Your task to perform on an android device: change the upload size in google photos Image 0: 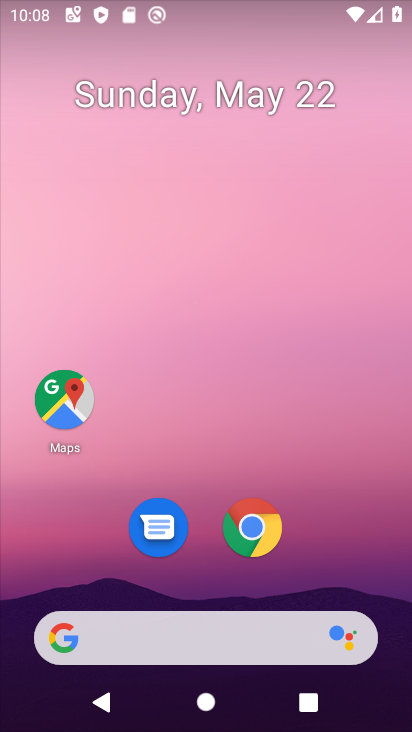
Step 0: drag from (350, 579) to (328, 386)
Your task to perform on an android device: change the upload size in google photos Image 1: 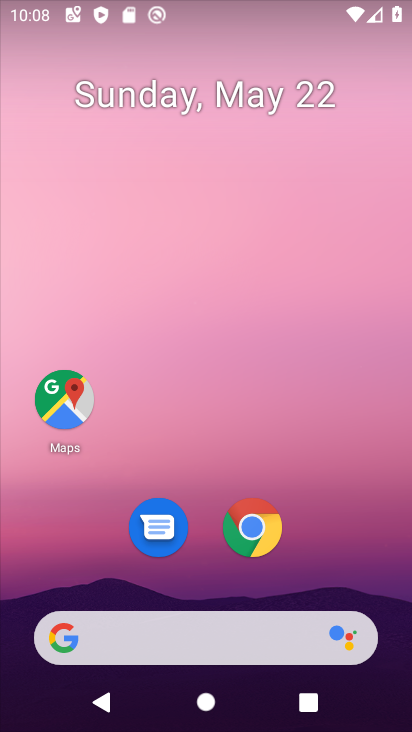
Step 1: drag from (367, 563) to (250, 111)
Your task to perform on an android device: change the upload size in google photos Image 2: 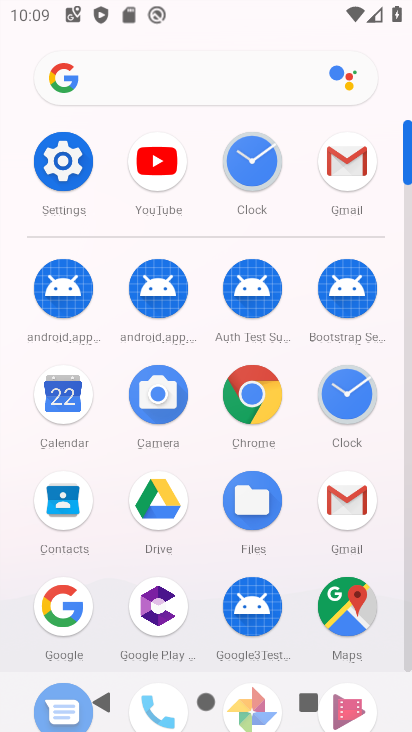
Step 2: click (407, 659)
Your task to perform on an android device: change the upload size in google photos Image 3: 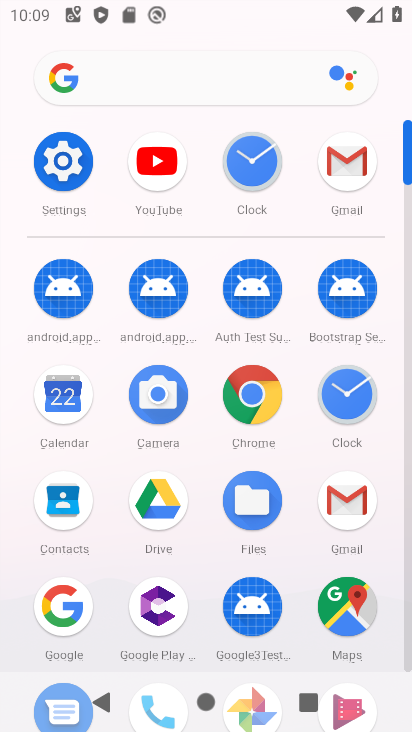
Step 3: click (407, 659)
Your task to perform on an android device: change the upload size in google photos Image 4: 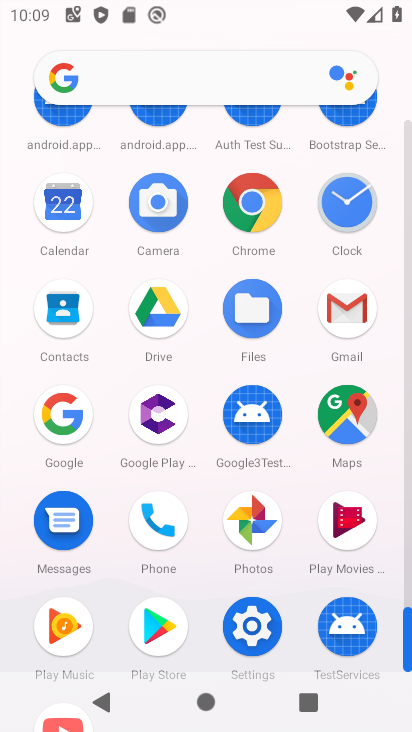
Step 4: click (241, 521)
Your task to perform on an android device: change the upload size in google photos Image 5: 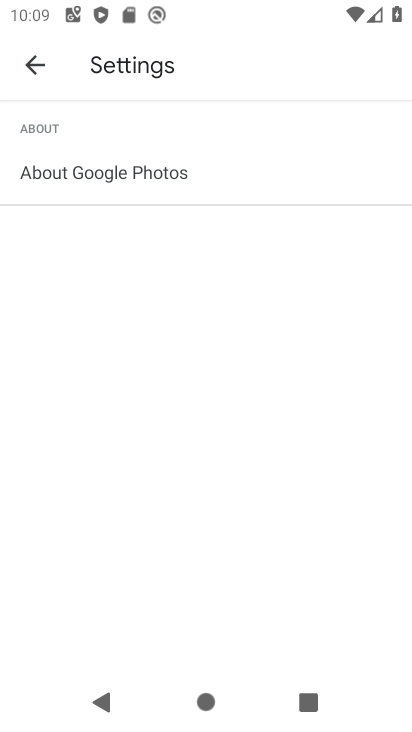
Step 5: click (41, 59)
Your task to perform on an android device: change the upload size in google photos Image 6: 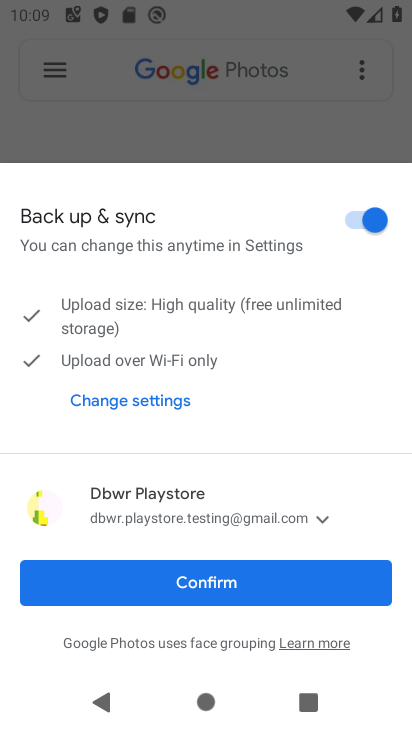
Step 6: click (123, 405)
Your task to perform on an android device: change the upload size in google photos Image 7: 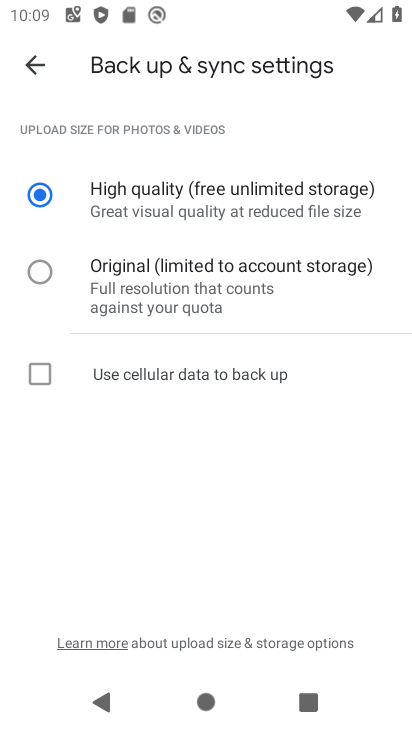
Step 7: click (189, 323)
Your task to perform on an android device: change the upload size in google photos Image 8: 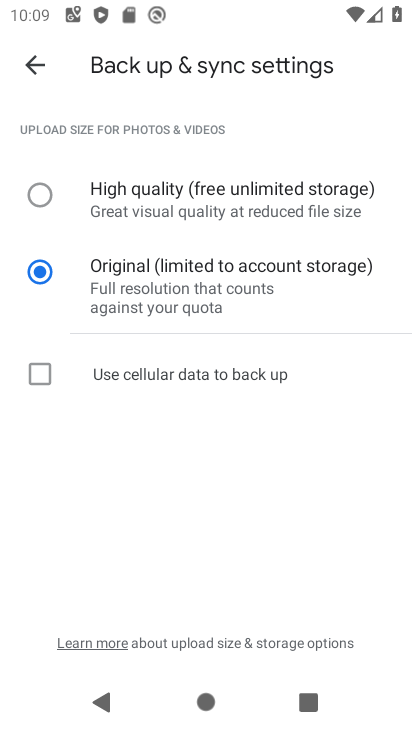
Step 8: task complete